Your task to perform on an android device: turn off location Image 0: 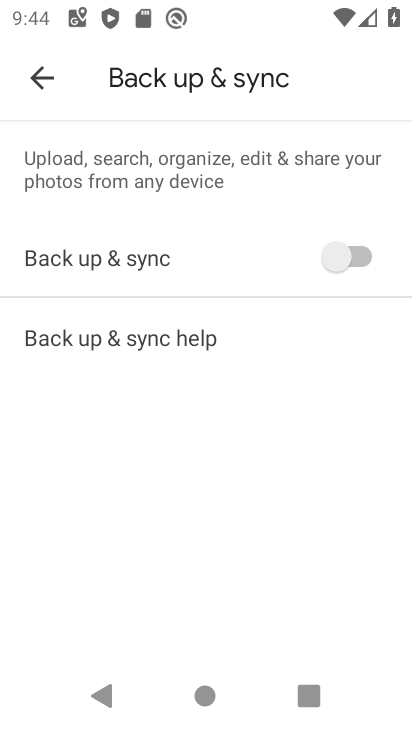
Step 0: press home button
Your task to perform on an android device: turn off location Image 1: 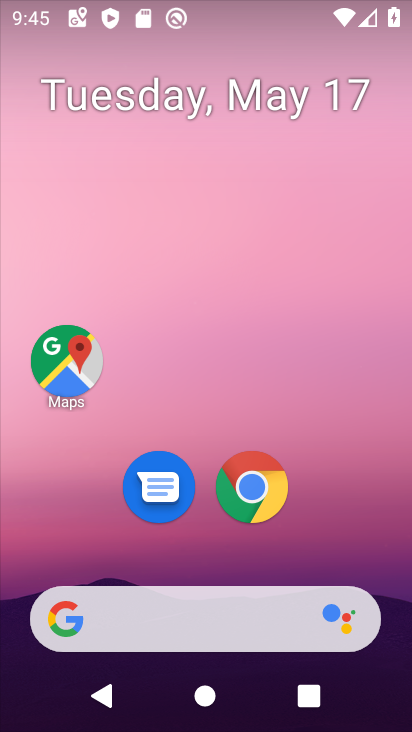
Step 1: drag from (269, 644) to (291, 235)
Your task to perform on an android device: turn off location Image 2: 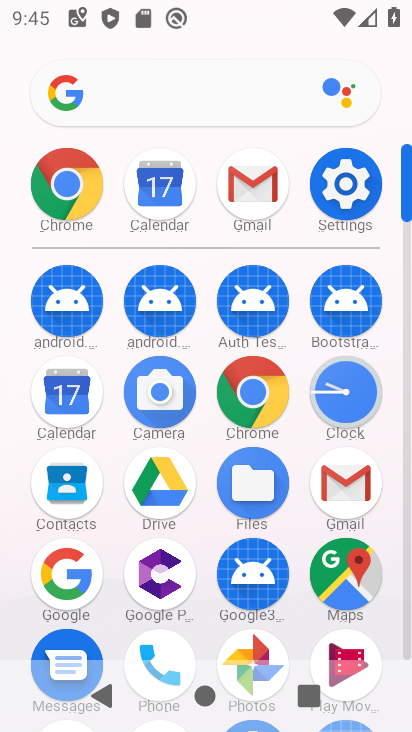
Step 2: click (345, 198)
Your task to perform on an android device: turn off location Image 3: 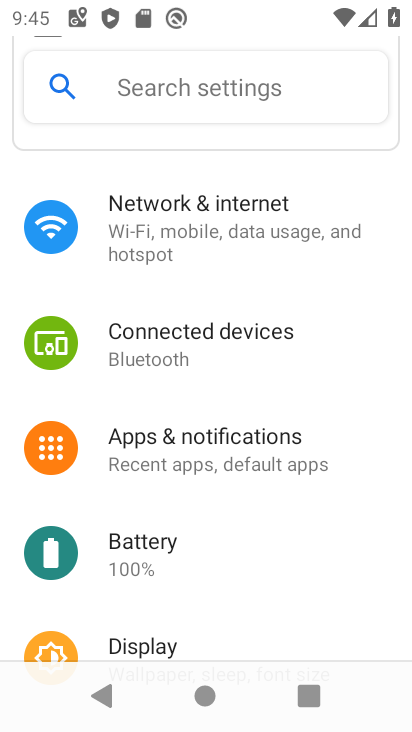
Step 3: click (195, 99)
Your task to perform on an android device: turn off location Image 4: 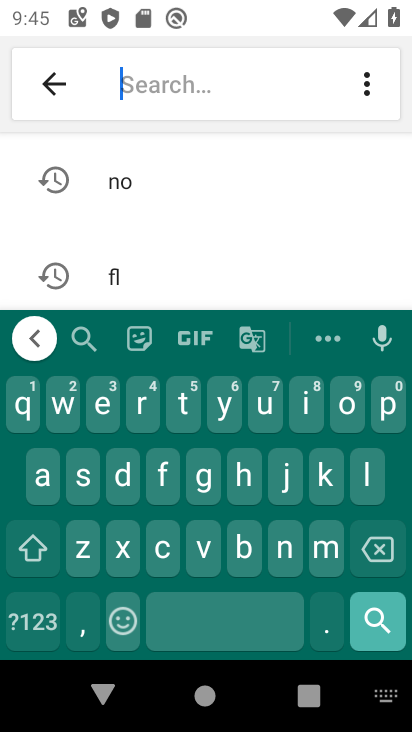
Step 4: click (364, 480)
Your task to perform on an android device: turn off location Image 5: 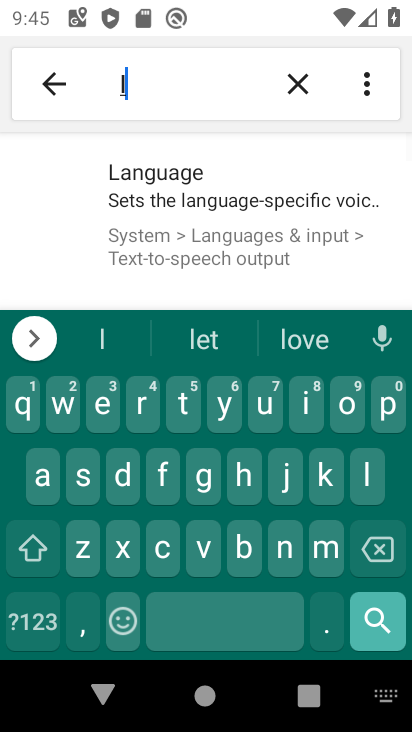
Step 5: click (347, 416)
Your task to perform on an android device: turn off location Image 6: 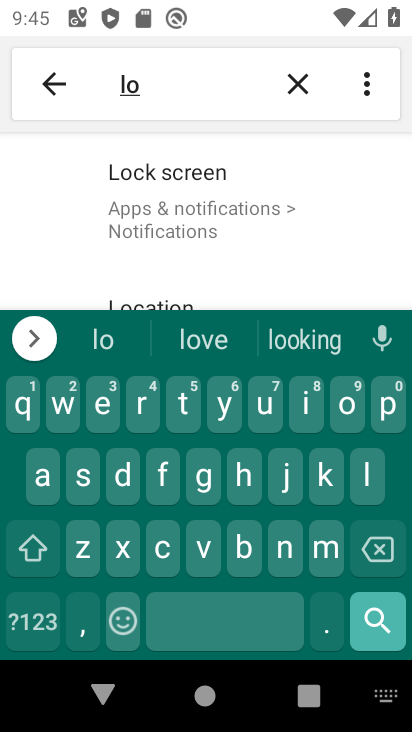
Step 6: drag from (244, 275) to (302, 180)
Your task to perform on an android device: turn off location Image 7: 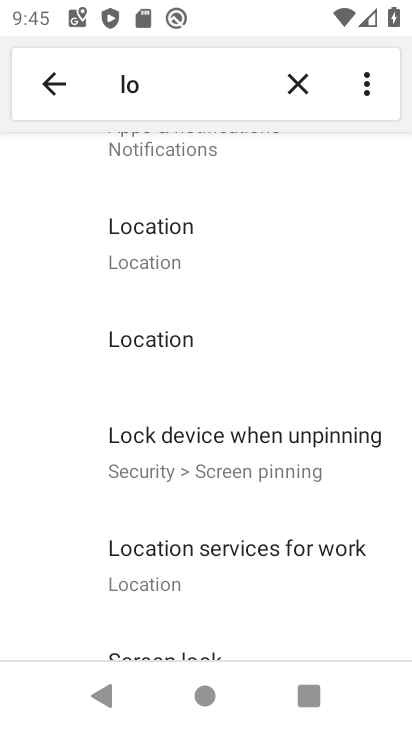
Step 7: click (230, 246)
Your task to perform on an android device: turn off location Image 8: 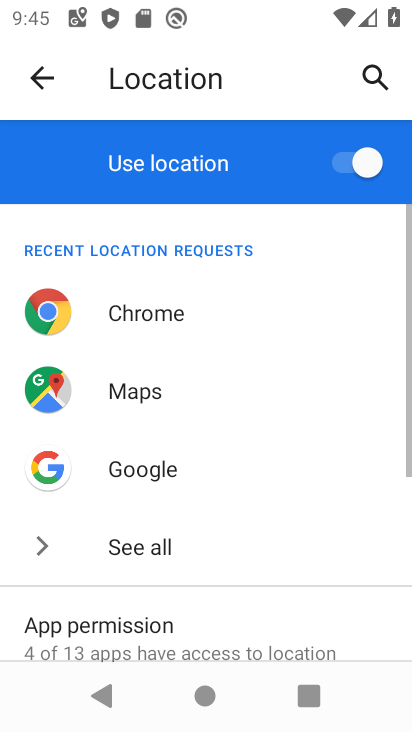
Step 8: click (342, 166)
Your task to perform on an android device: turn off location Image 9: 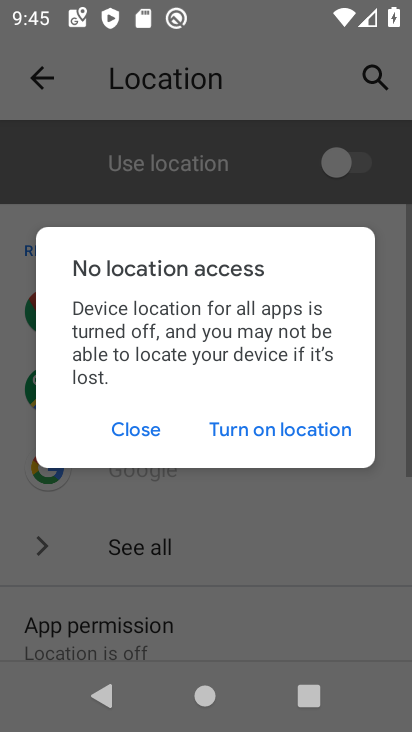
Step 9: task complete